Your task to perform on an android device: toggle data saver in the chrome app Image 0: 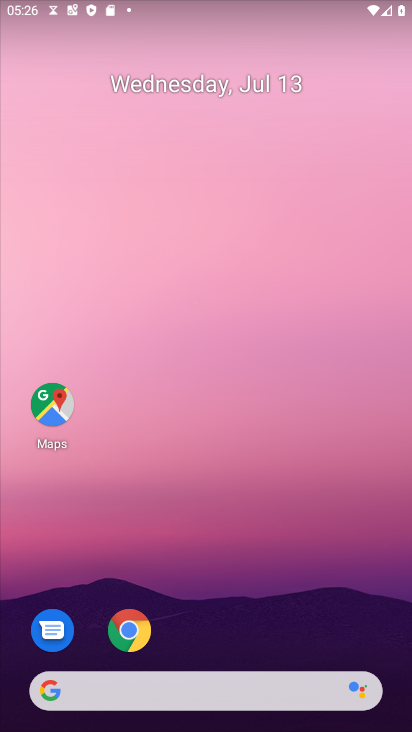
Step 0: drag from (221, 686) to (359, 70)
Your task to perform on an android device: toggle data saver in the chrome app Image 1: 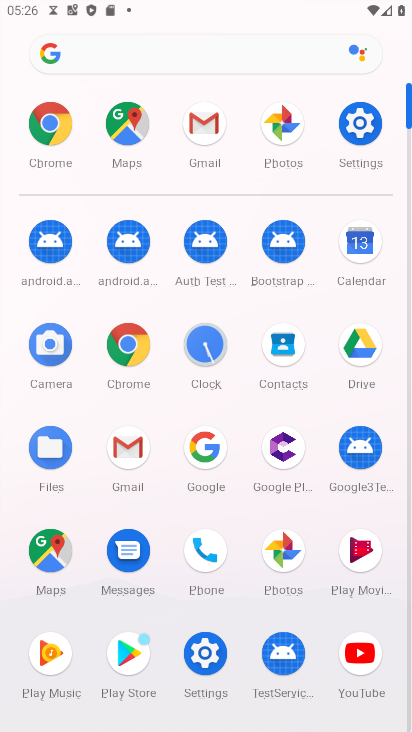
Step 1: click (126, 349)
Your task to perform on an android device: toggle data saver in the chrome app Image 2: 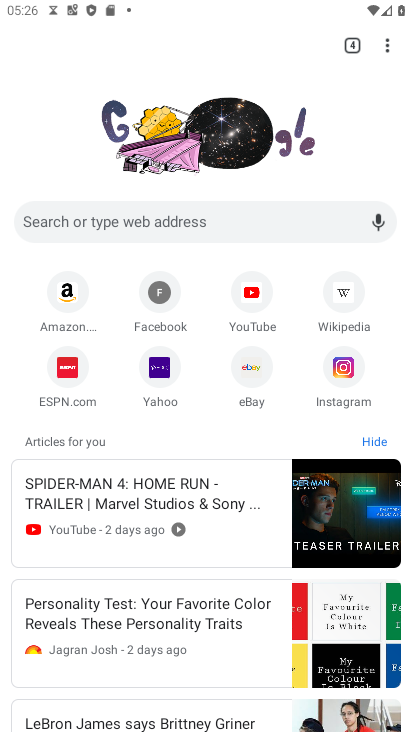
Step 2: drag from (392, 36) to (266, 375)
Your task to perform on an android device: toggle data saver in the chrome app Image 3: 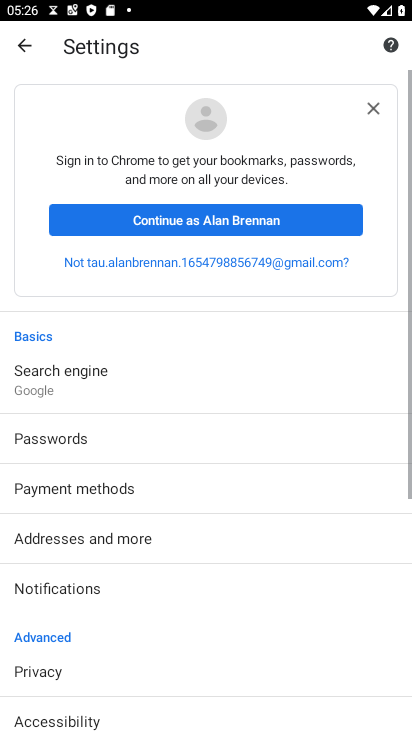
Step 3: drag from (208, 647) to (285, 86)
Your task to perform on an android device: toggle data saver in the chrome app Image 4: 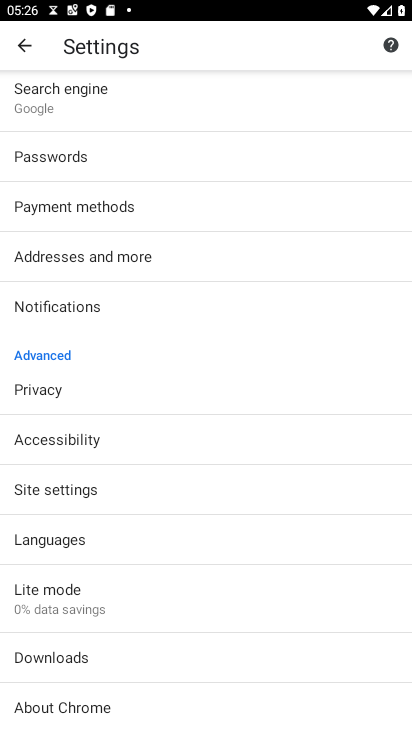
Step 4: click (82, 594)
Your task to perform on an android device: toggle data saver in the chrome app Image 5: 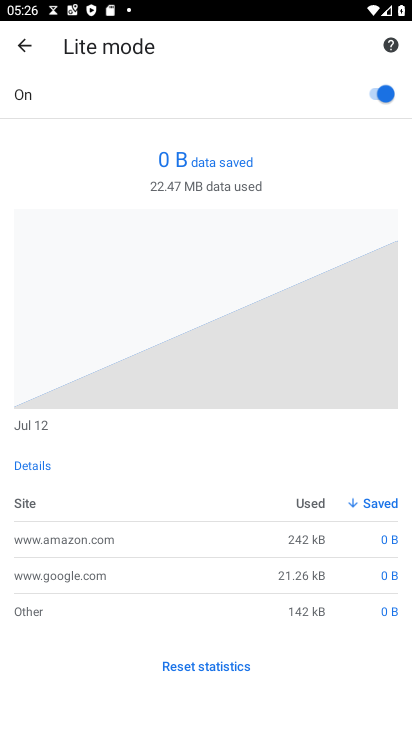
Step 5: click (387, 88)
Your task to perform on an android device: toggle data saver in the chrome app Image 6: 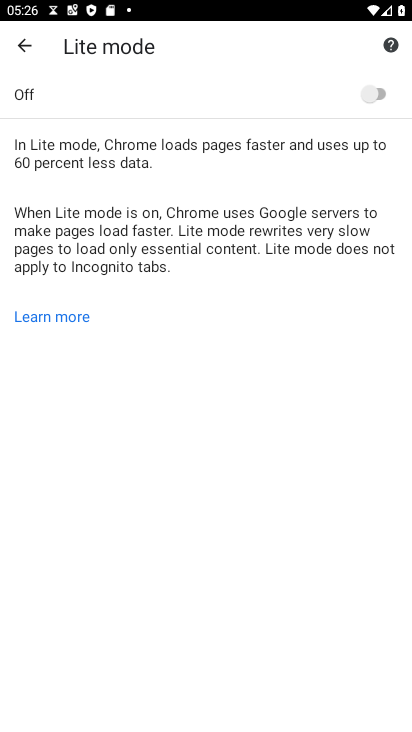
Step 6: task complete